Your task to perform on an android device: What's the weather going to be tomorrow? Image 0: 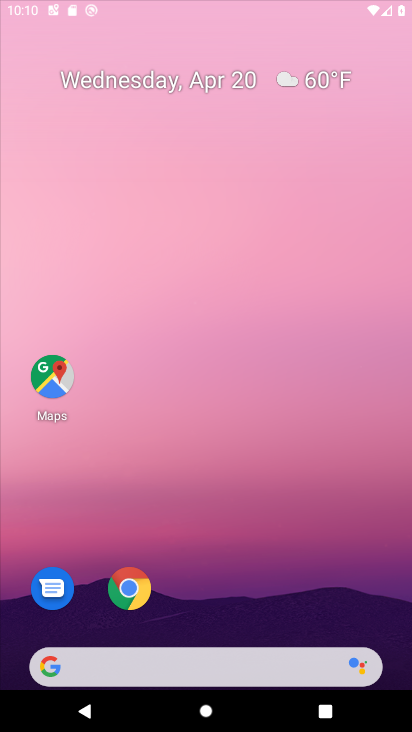
Step 0: click (326, 307)
Your task to perform on an android device: What's the weather going to be tomorrow? Image 1: 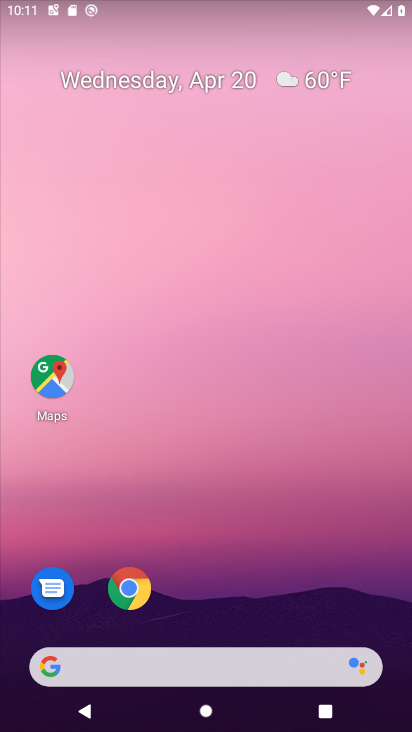
Step 1: drag from (26, 261) to (377, 290)
Your task to perform on an android device: What's the weather going to be tomorrow? Image 2: 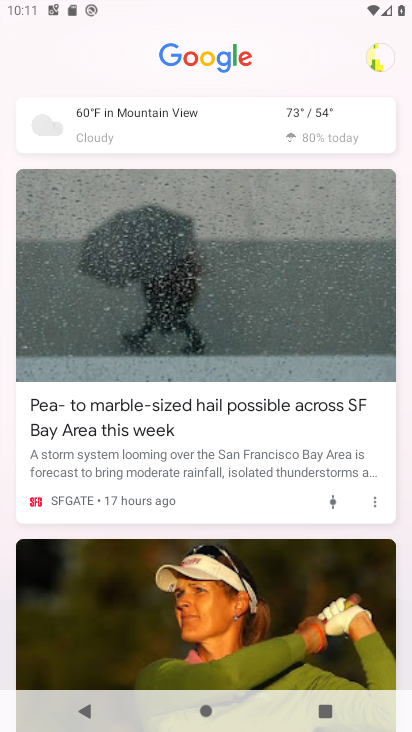
Step 2: click (128, 127)
Your task to perform on an android device: What's the weather going to be tomorrow? Image 3: 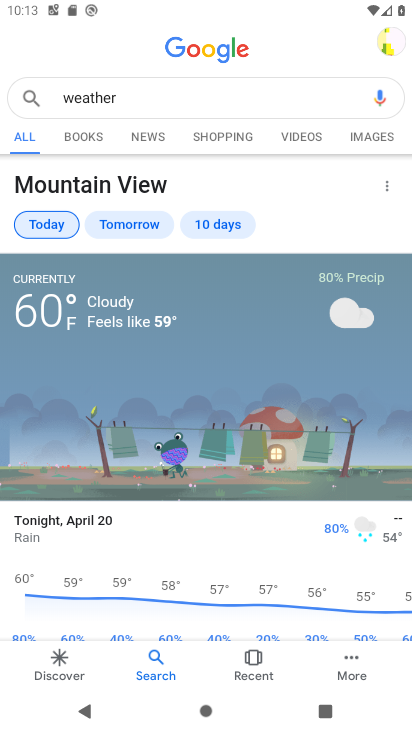
Step 3: click (110, 230)
Your task to perform on an android device: What's the weather going to be tomorrow? Image 4: 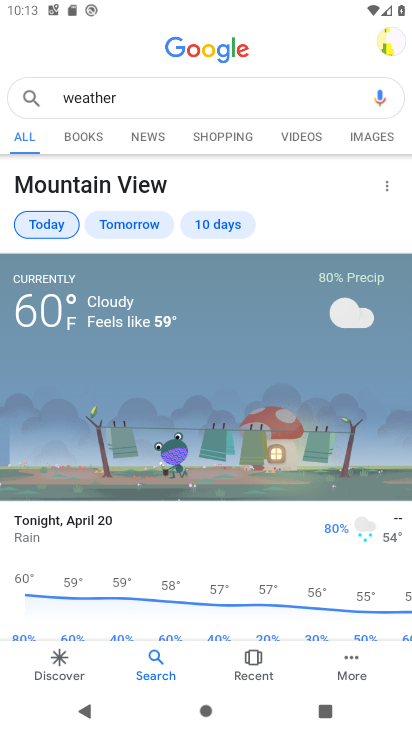
Step 4: click (162, 96)
Your task to perform on an android device: What's the weather going to be tomorrow? Image 5: 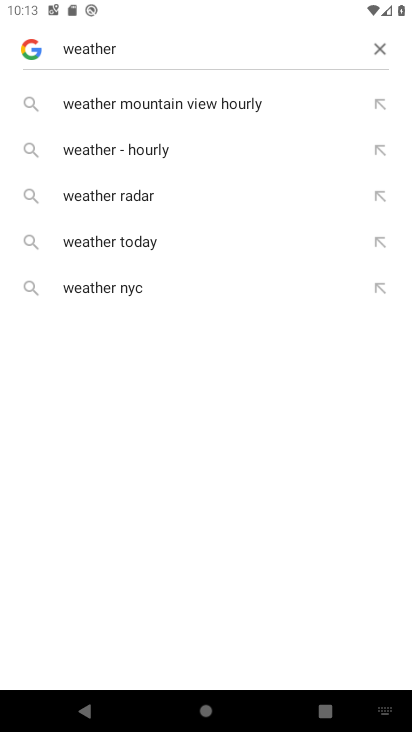
Step 5: type " tomorrow"
Your task to perform on an android device: What's the weather going to be tomorrow? Image 6: 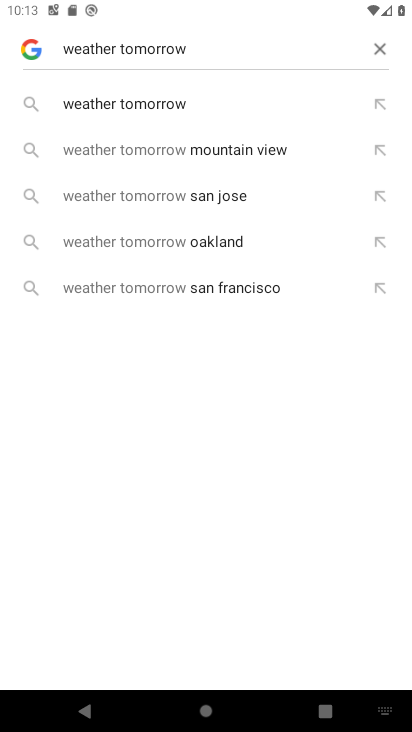
Step 6: click (193, 106)
Your task to perform on an android device: What's the weather going to be tomorrow? Image 7: 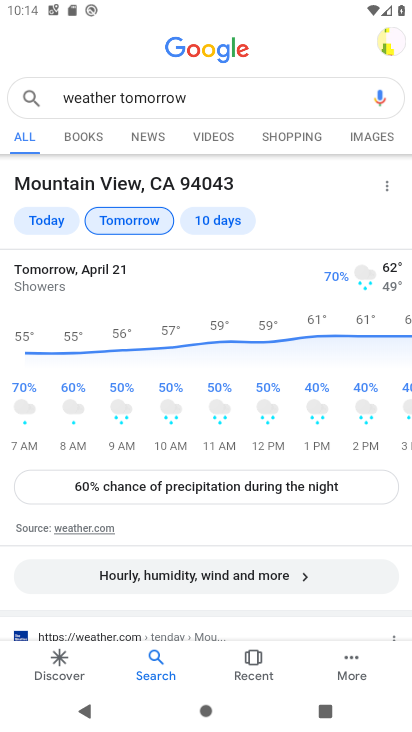
Step 7: task complete